Your task to perform on an android device: turn off notifications in google photos Image 0: 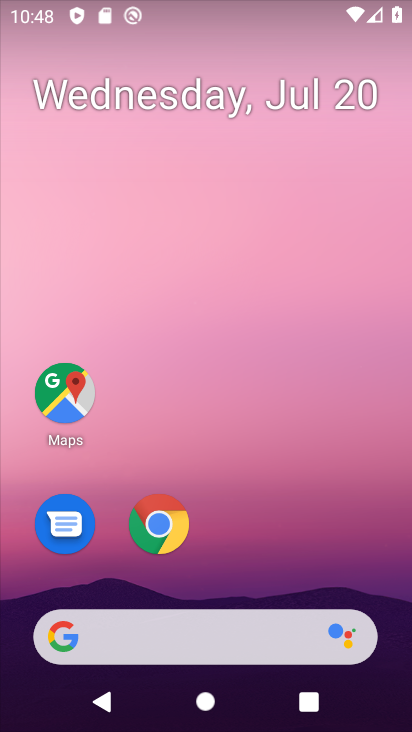
Step 0: drag from (286, 579) to (272, 9)
Your task to perform on an android device: turn off notifications in google photos Image 1: 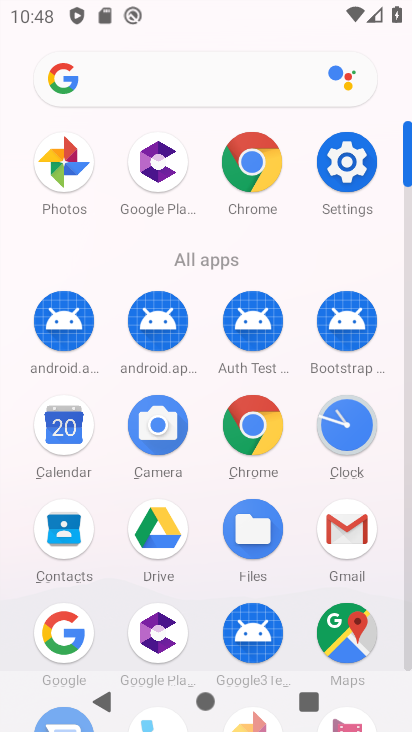
Step 1: click (57, 148)
Your task to perform on an android device: turn off notifications in google photos Image 2: 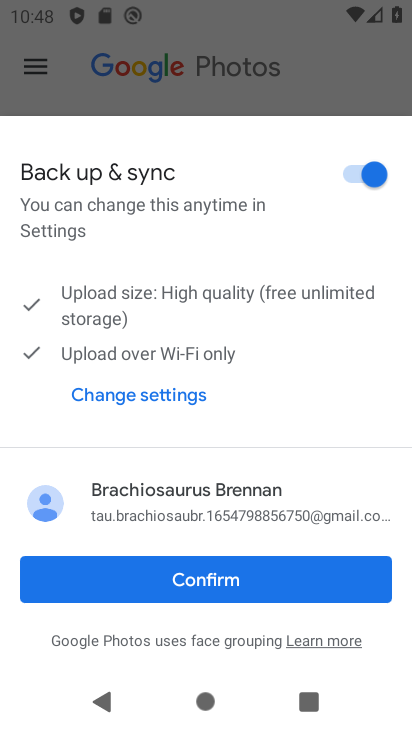
Step 2: click (260, 589)
Your task to perform on an android device: turn off notifications in google photos Image 3: 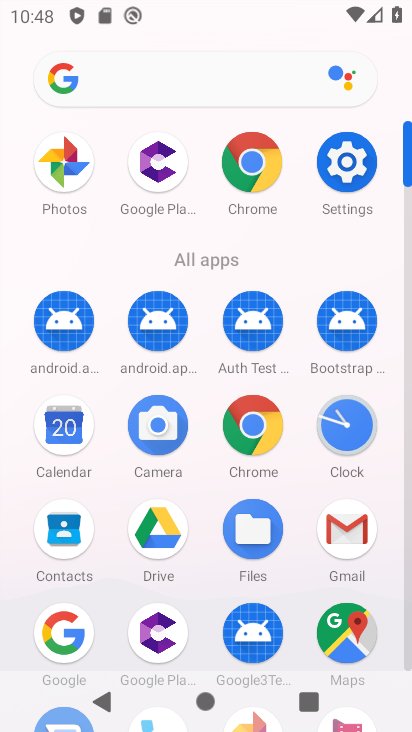
Step 3: click (75, 172)
Your task to perform on an android device: turn off notifications in google photos Image 4: 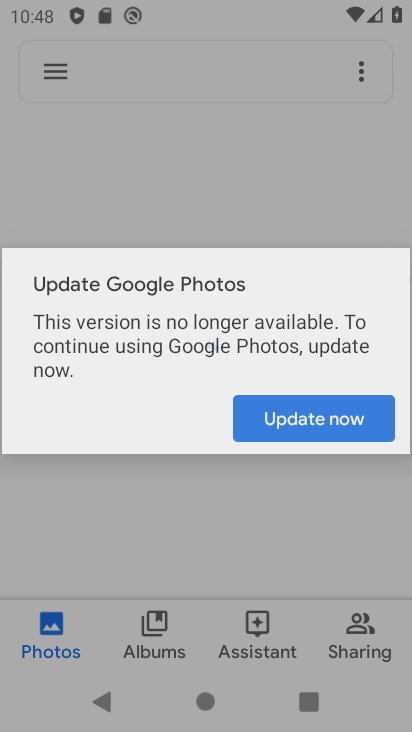
Step 4: click (57, 67)
Your task to perform on an android device: turn off notifications in google photos Image 5: 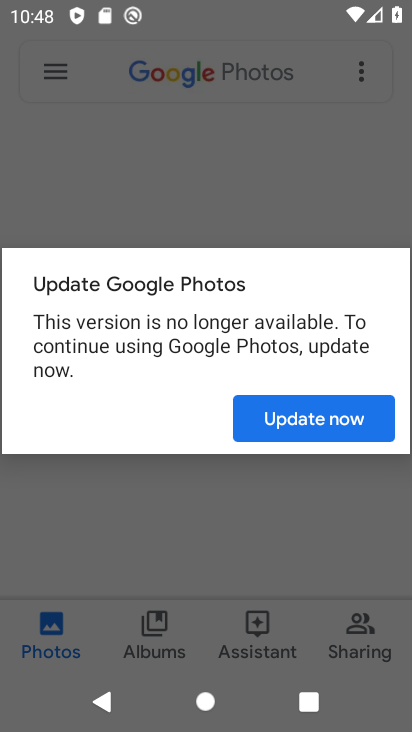
Step 5: click (302, 417)
Your task to perform on an android device: turn off notifications in google photos Image 6: 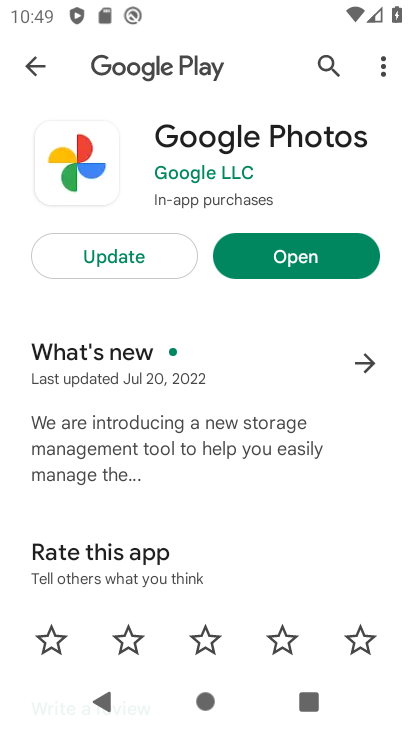
Step 6: click (308, 249)
Your task to perform on an android device: turn off notifications in google photos Image 7: 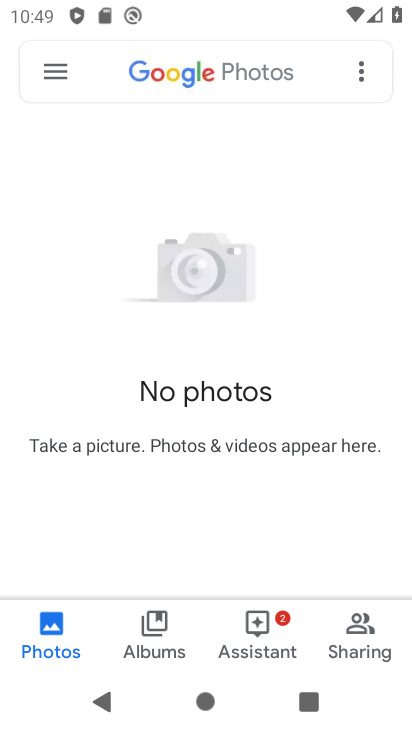
Step 7: click (64, 75)
Your task to perform on an android device: turn off notifications in google photos Image 8: 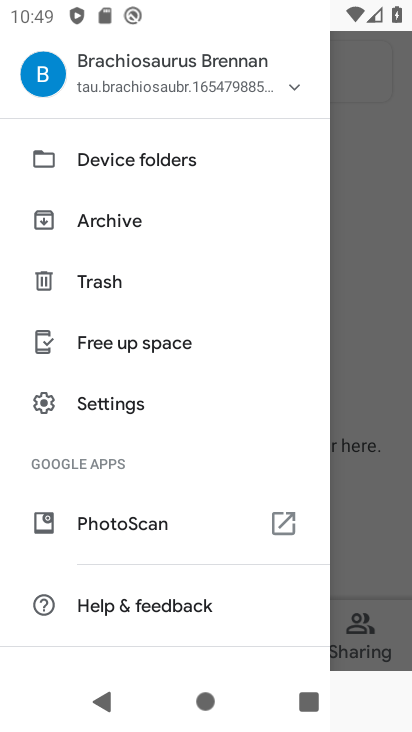
Step 8: click (109, 401)
Your task to perform on an android device: turn off notifications in google photos Image 9: 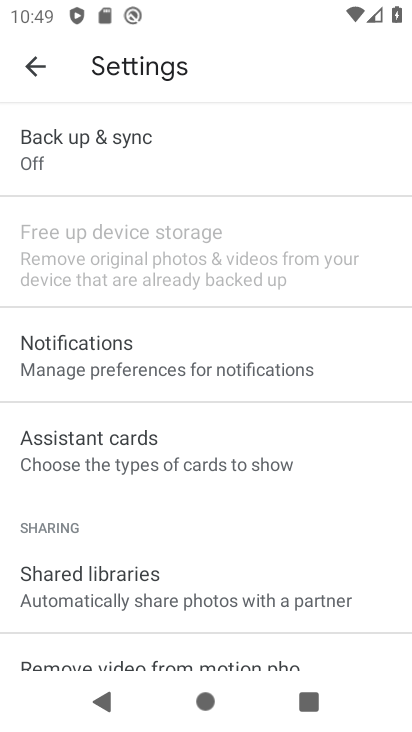
Step 9: click (140, 370)
Your task to perform on an android device: turn off notifications in google photos Image 10: 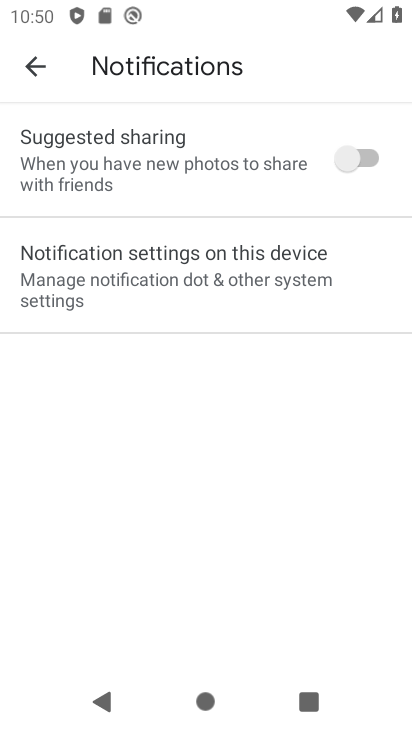
Step 10: click (220, 255)
Your task to perform on an android device: turn off notifications in google photos Image 11: 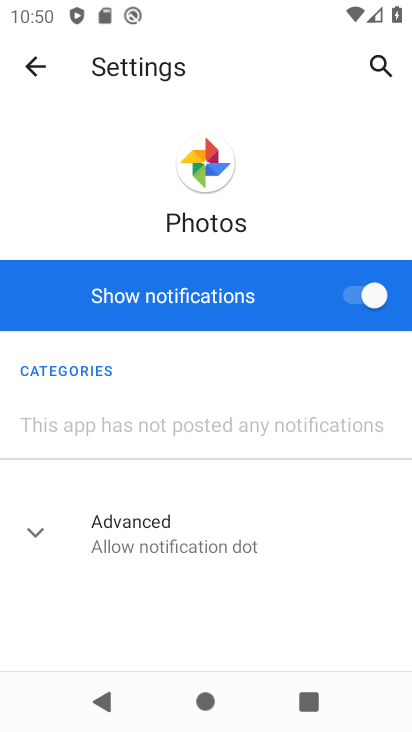
Step 11: click (359, 290)
Your task to perform on an android device: turn off notifications in google photos Image 12: 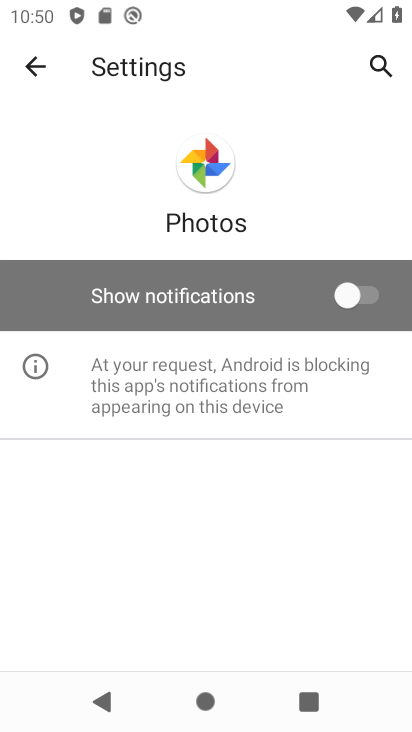
Step 12: task complete